Your task to perform on an android device: Open Google Chrome and open the bookmarks view Image 0: 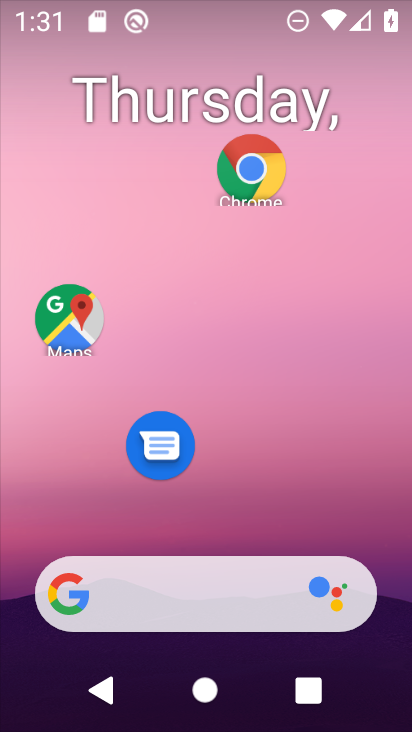
Step 0: drag from (256, 637) to (342, 157)
Your task to perform on an android device: Open Google Chrome and open the bookmarks view Image 1: 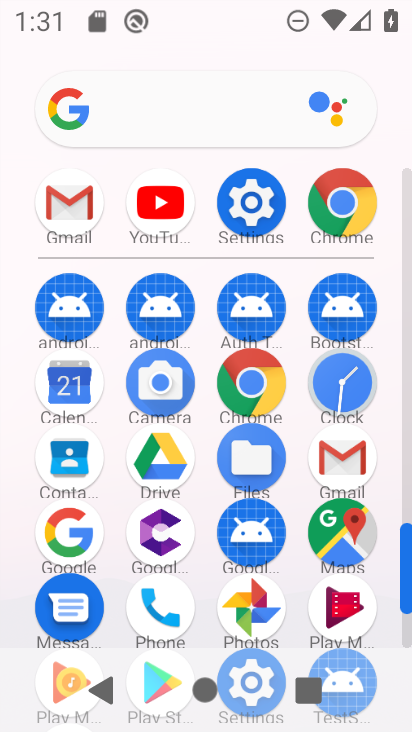
Step 1: click (337, 202)
Your task to perform on an android device: Open Google Chrome and open the bookmarks view Image 2: 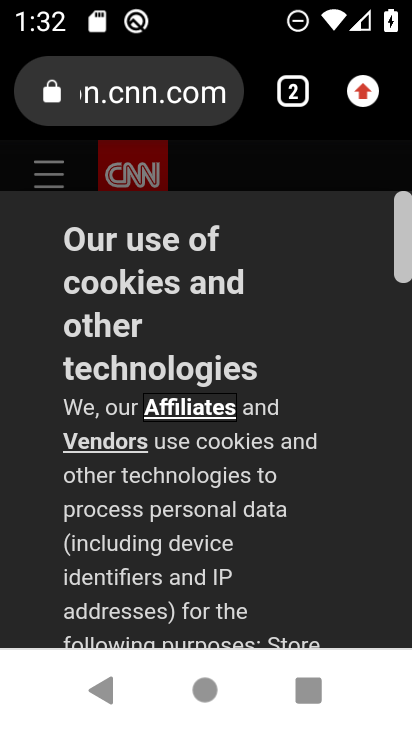
Step 2: click (367, 99)
Your task to perform on an android device: Open Google Chrome and open the bookmarks view Image 3: 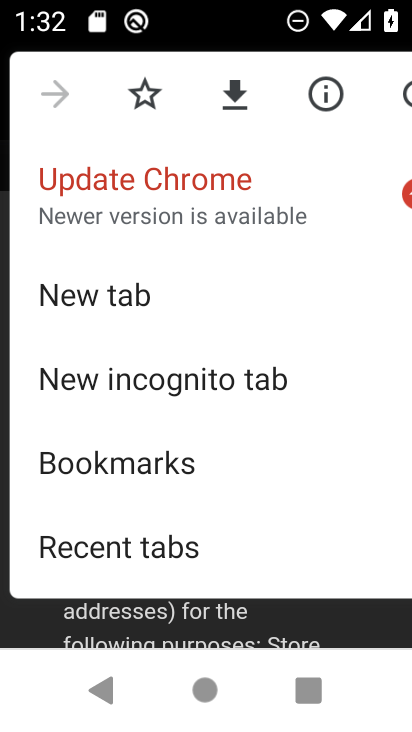
Step 3: click (126, 461)
Your task to perform on an android device: Open Google Chrome and open the bookmarks view Image 4: 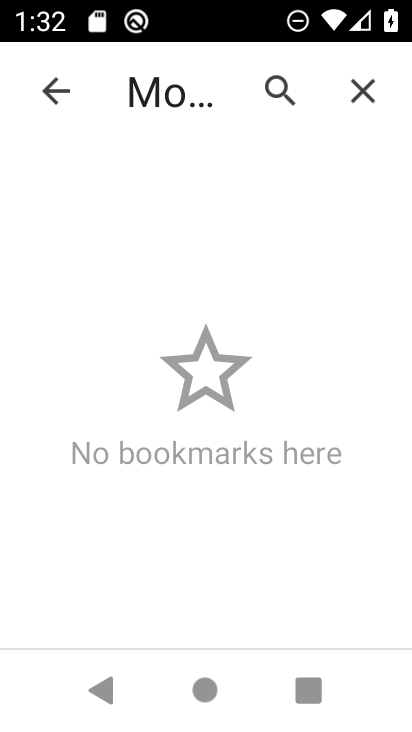
Step 4: task complete